Your task to perform on an android device: Open privacy settings Image 0: 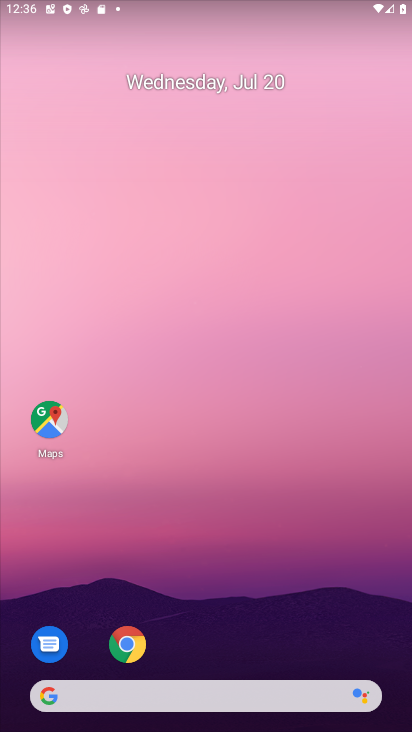
Step 0: drag from (340, 608) to (229, 144)
Your task to perform on an android device: Open privacy settings Image 1: 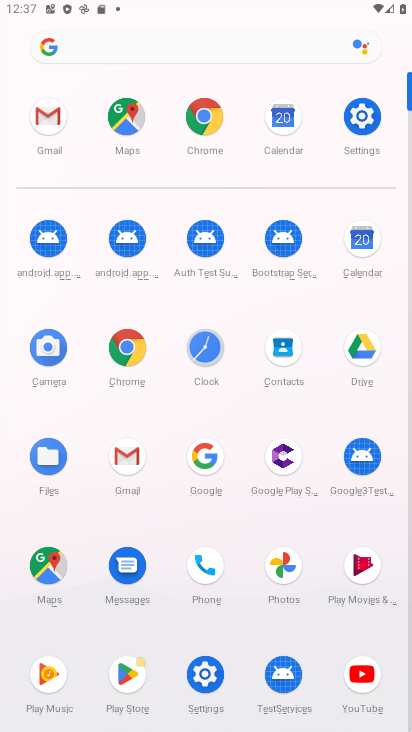
Step 1: click (186, 682)
Your task to perform on an android device: Open privacy settings Image 2: 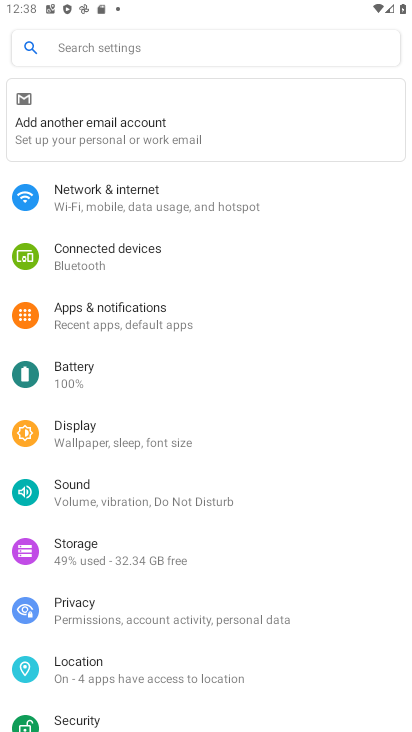
Step 2: click (126, 596)
Your task to perform on an android device: Open privacy settings Image 3: 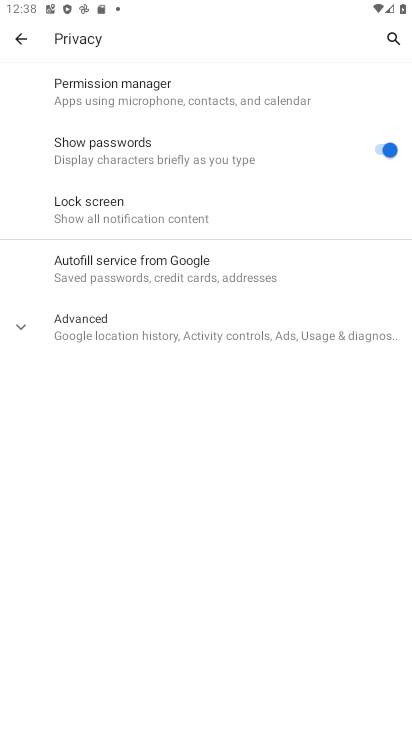
Step 3: task complete